Your task to perform on an android device: Open Reddit.com Image 0: 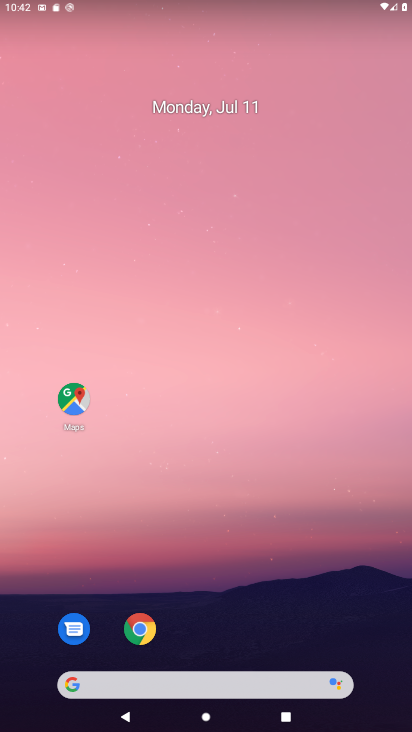
Step 0: click (144, 634)
Your task to perform on an android device: Open Reddit.com Image 1: 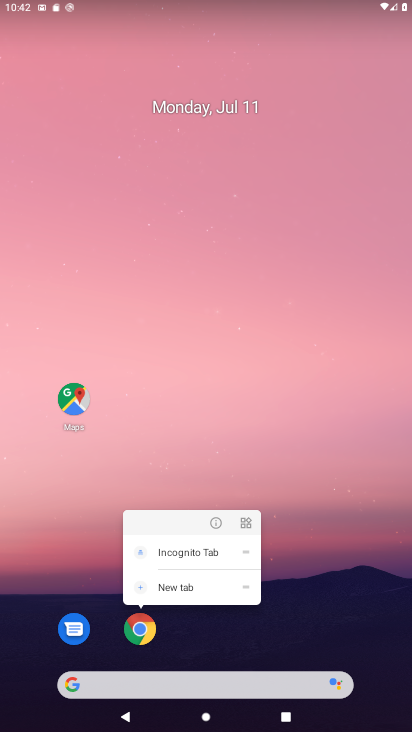
Step 1: click (144, 631)
Your task to perform on an android device: Open Reddit.com Image 2: 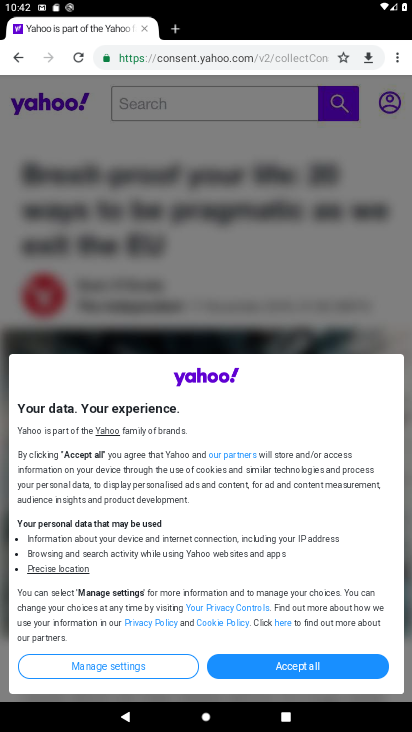
Step 2: click (277, 661)
Your task to perform on an android device: Open Reddit.com Image 3: 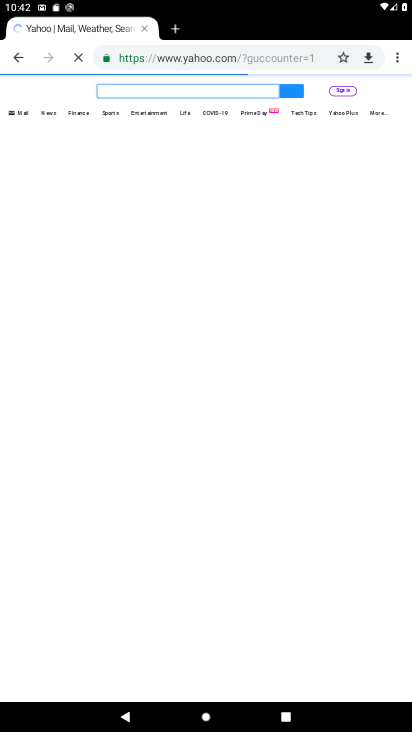
Step 3: click (145, 31)
Your task to perform on an android device: Open Reddit.com Image 4: 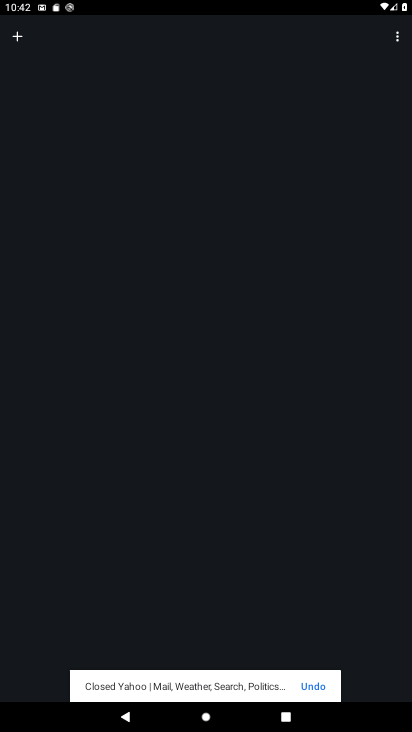
Step 4: click (21, 38)
Your task to perform on an android device: Open Reddit.com Image 5: 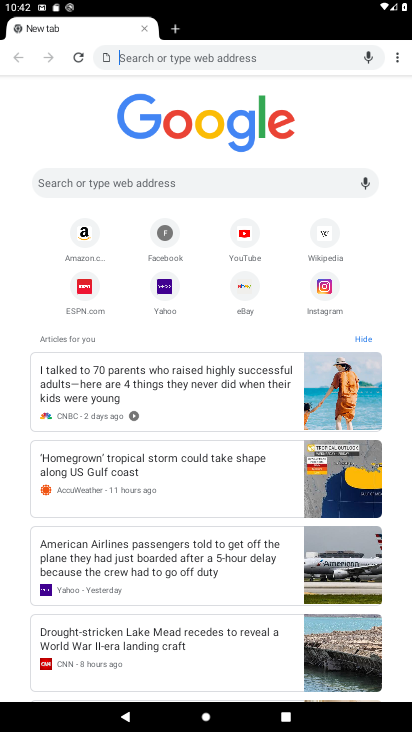
Step 5: click (159, 182)
Your task to perform on an android device: Open Reddit.com Image 6: 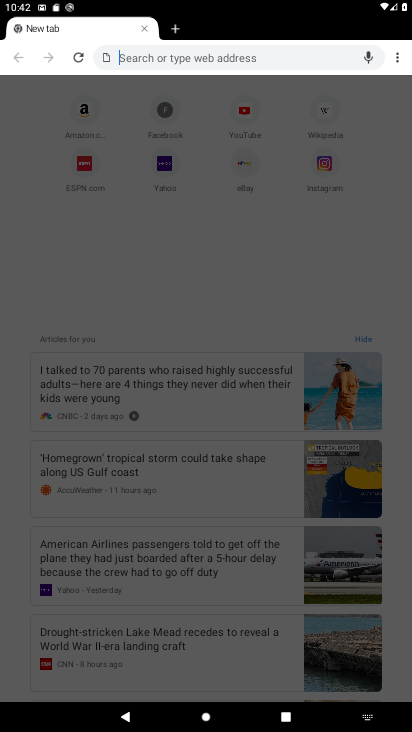
Step 6: type "reddit.com"
Your task to perform on an android device: Open Reddit.com Image 7: 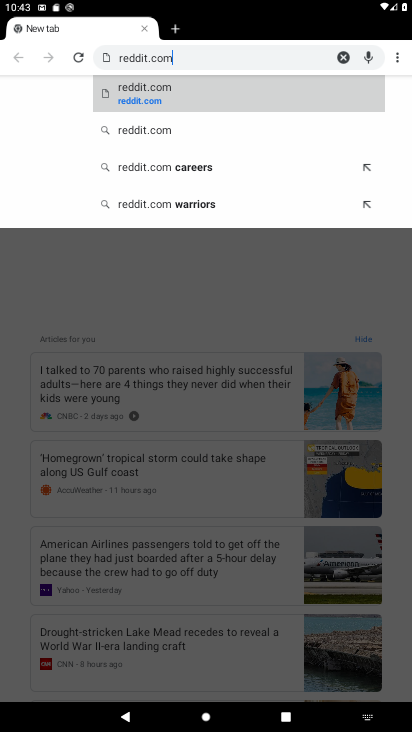
Step 7: click (166, 87)
Your task to perform on an android device: Open Reddit.com Image 8: 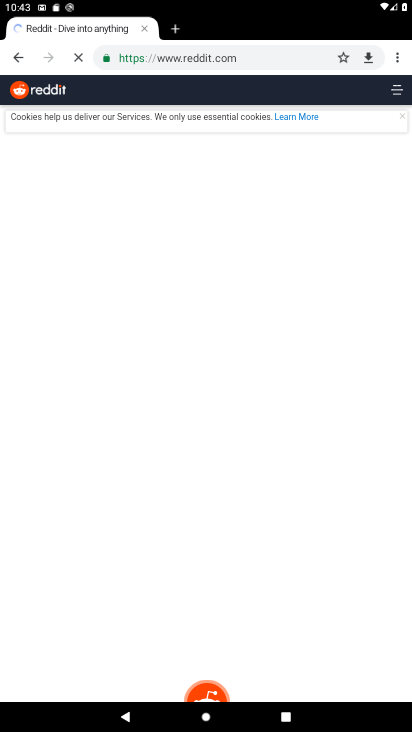
Step 8: task complete